Your task to perform on an android device: Toggle the flashlight Image 0: 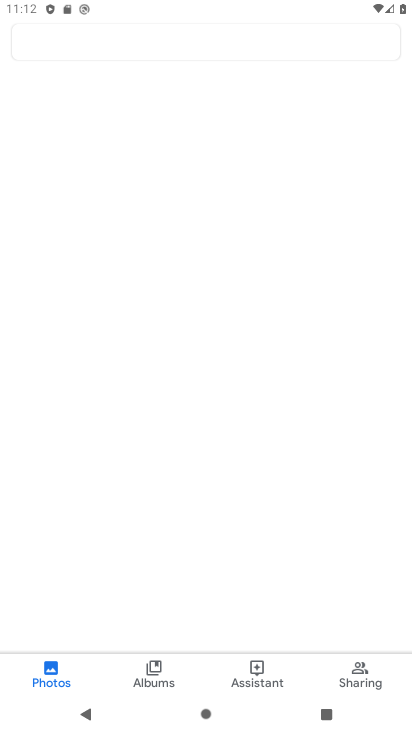
Step 0: drag from (179, 623) to (248, 396)
Your task to perform on an android device: Toggle the flashlight Image 1: 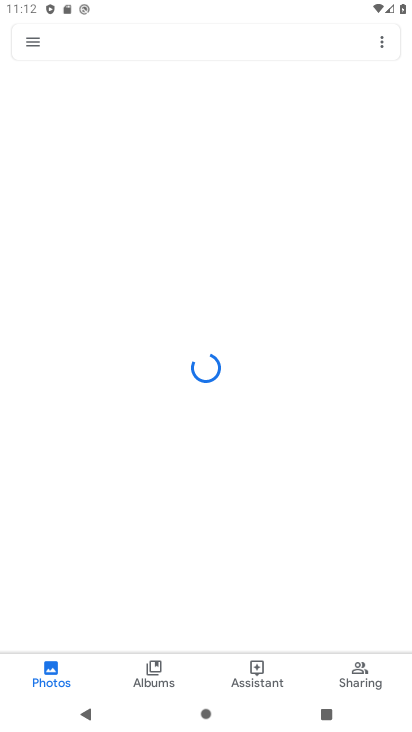
Step 1: press home button
Your task to perform on an android device: Toggle the flashlight Image 2: 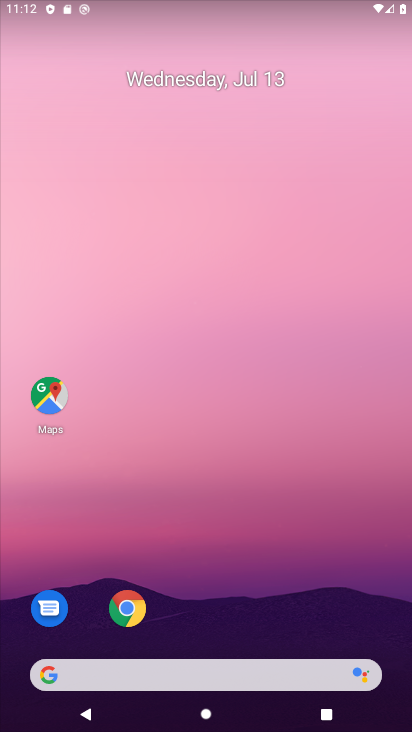
Step 2: drag from (211, 640) to (195, 249)
Your task to perform on an android device: Toggle the flashlight Image 3: 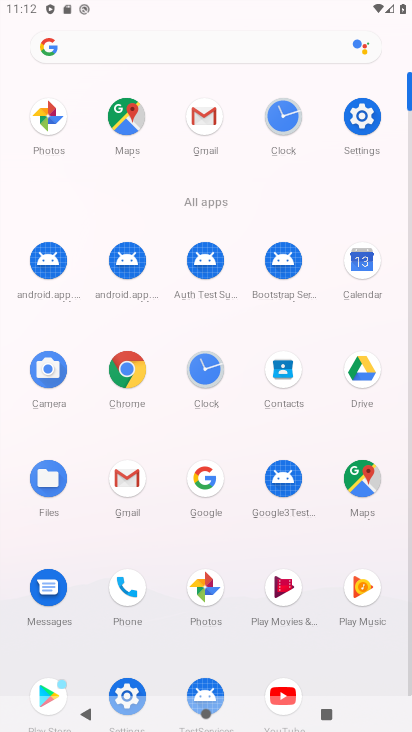
Step 3: click (354, 122)
Your task to perform on an android device: Toggle the flashlight Image 4: 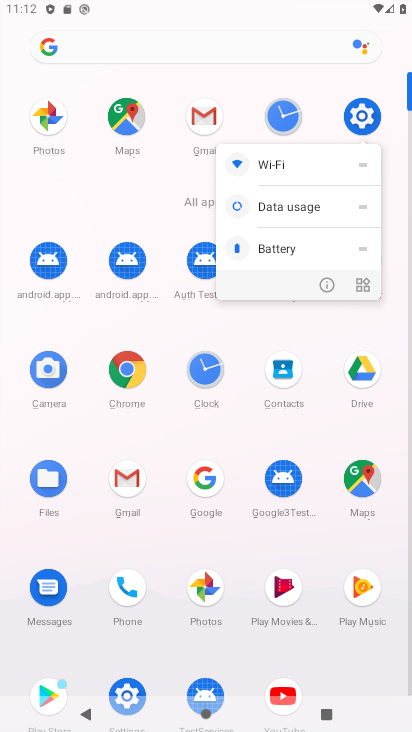
Step 4: click (320, 290)
Your task to perform on an android device: Toggle the flashlight Image 5: 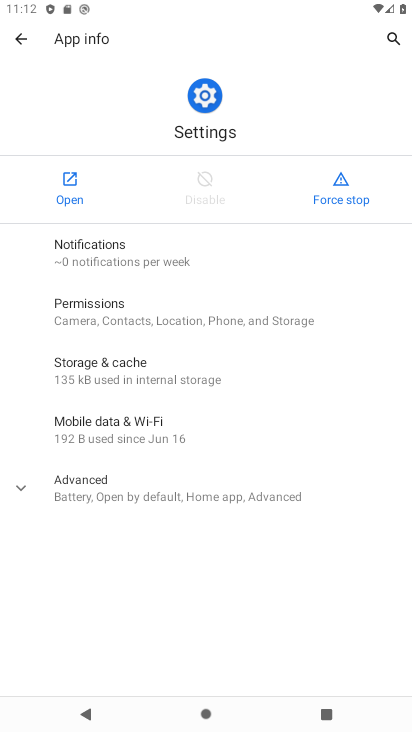
Step 5: click (70, 193)
Your task to perform on an android device: Toggle the flashlight Image 6: 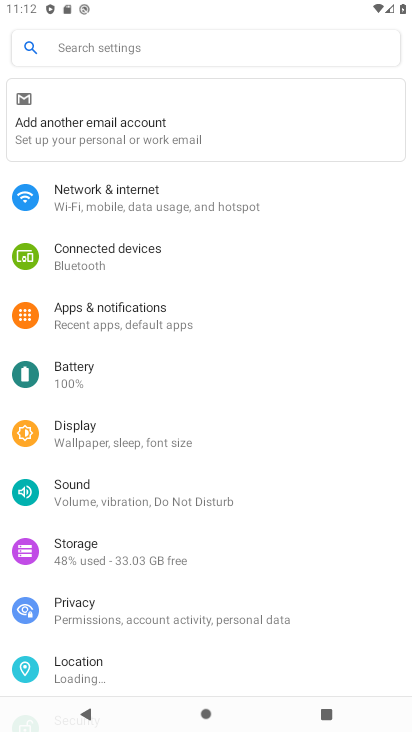
Step 6: click (124, 53)
Your task to perform on an android device: Toggle the flashlight Image 7: 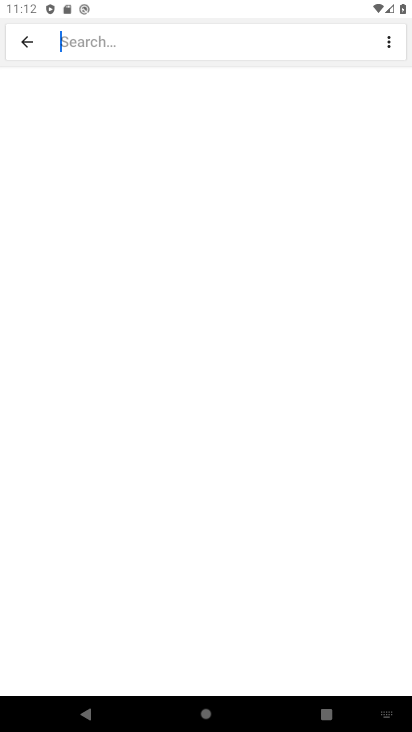
Step 7: type "flashlight"
Your task to perform on an android device: Toggle the flashlight Image 8: 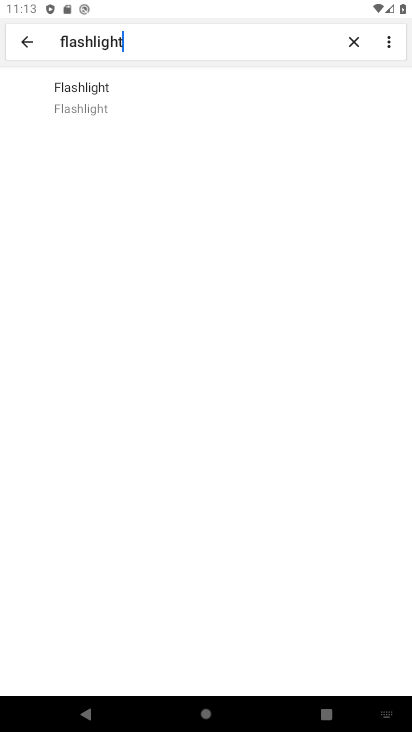
Step 8: click (196, 102)
Your task to perform on an android device: Toggle the flashlight Image 9: 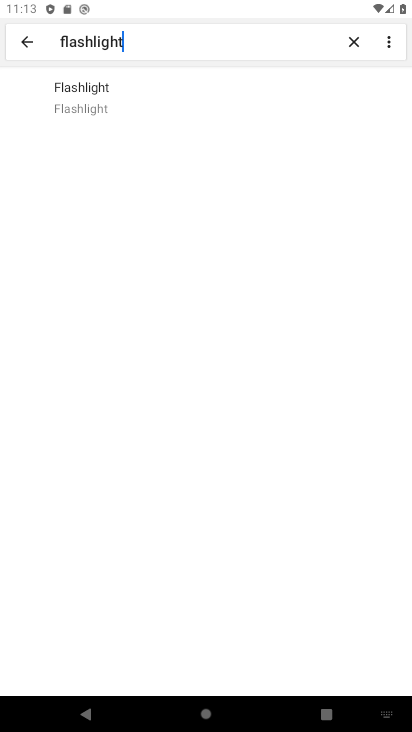
Step 9: task complete